Your task to perform on an android device: Go to notification settings Image 0: 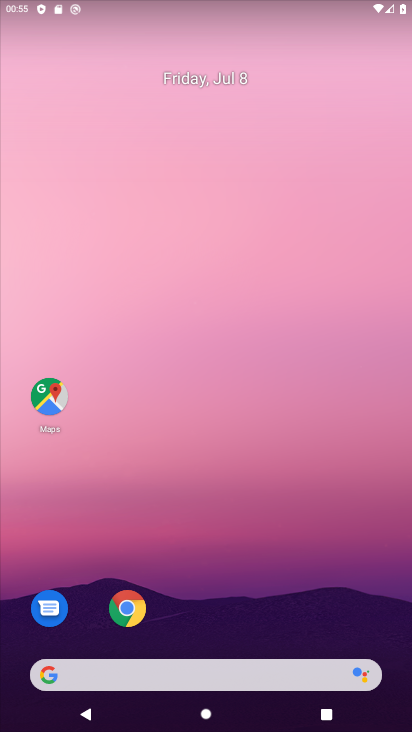
Step 0: press home button
Your task to perform on an android device: Go to notification settings Image 1: 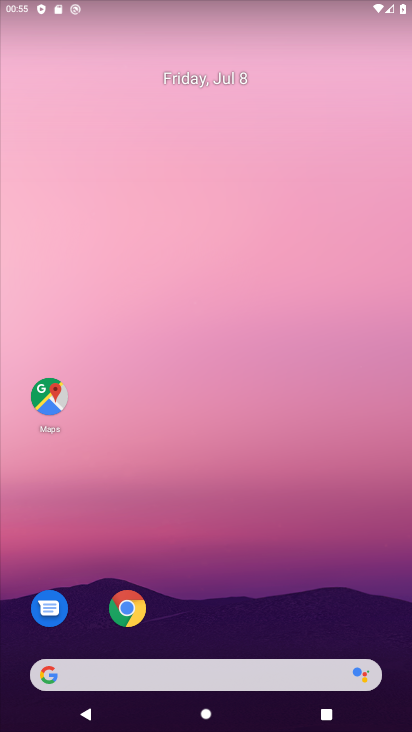
Step 1: drag from (308, 624) to (35, 549)
Your task to perform on an android device: Go to notification settings Image 2: 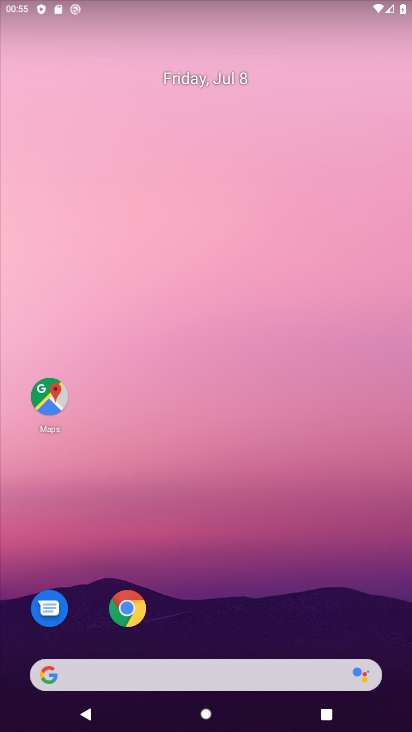
Step 2: drag from (310, 584) to (282, 16)
Your task to perform on an android device: Go to notification settings Image 3: 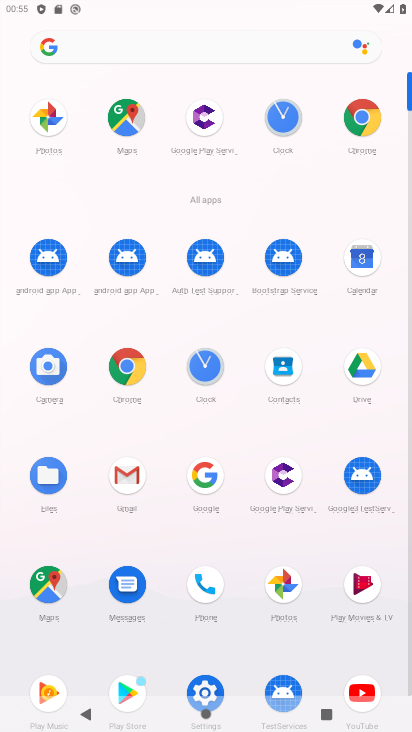
Step 3: click (207, 674)
Your task to perform on an android device: Go to notification settings Image 4: 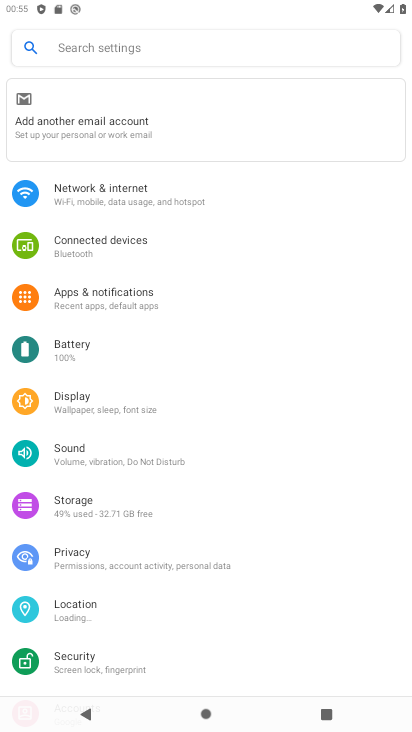
Step 4: click (126, 311)
Your task to perform on an android device: Go to notification settings Image 5: 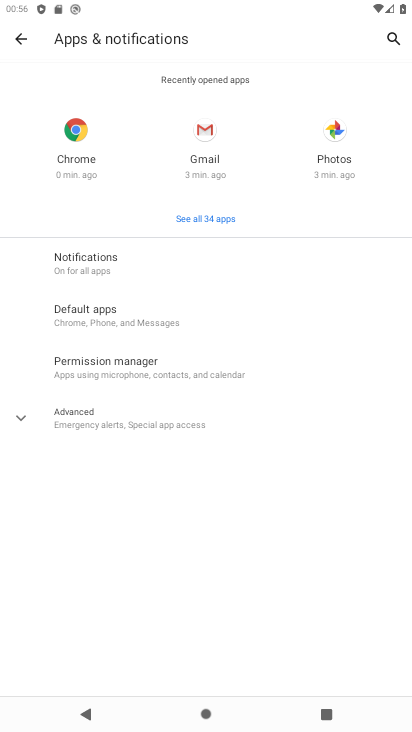
Step 5: click (82, 253)
Your task to perform on an android device: Go to notification settings Image 6: 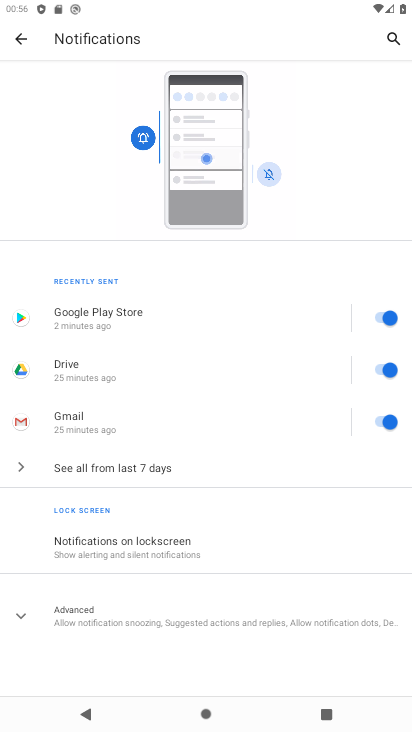
Step 6: task complete